Your task to perform on an android device: Open Chrome and go to settings Image 0: 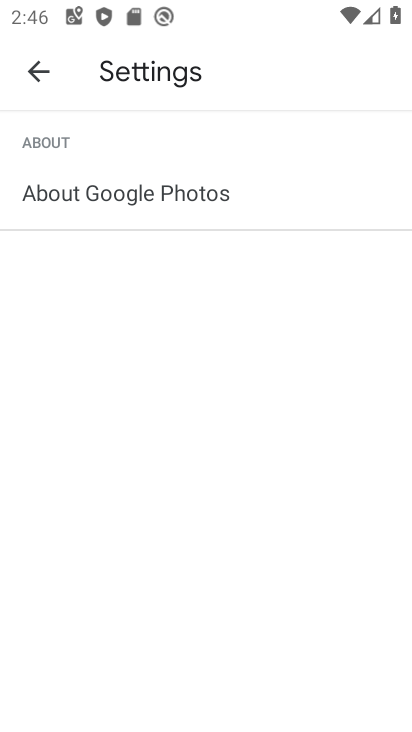
Step 0: press home button
Your task to perform on an android device: Open Chrome and go to settings Image 1: 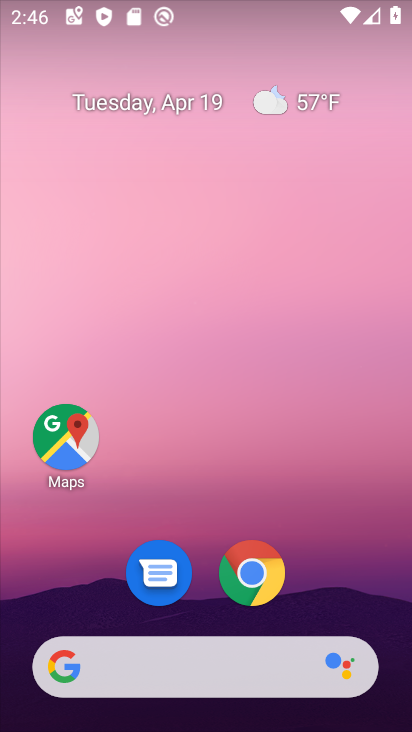
Step 1: click (245, 580)
Your task to perform on an android device: Open Chrome and go to settings Image 2: 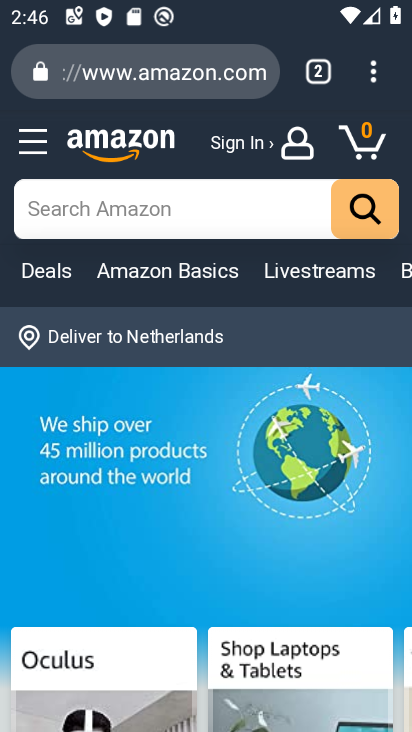
Step 2: click (376, 70)
Your task to perform on an android device: Open Chrome and go to settings Image 3: 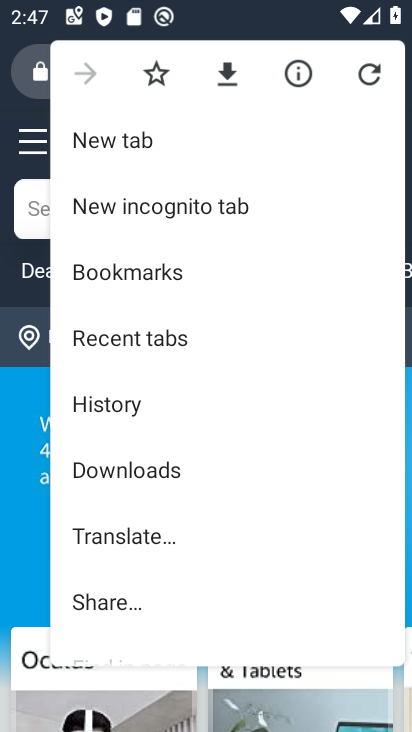
Step 3: drag from (274, 536) to (276, 190)
Your task to perform on an android device: Open Chrome and go to settings Image 4: 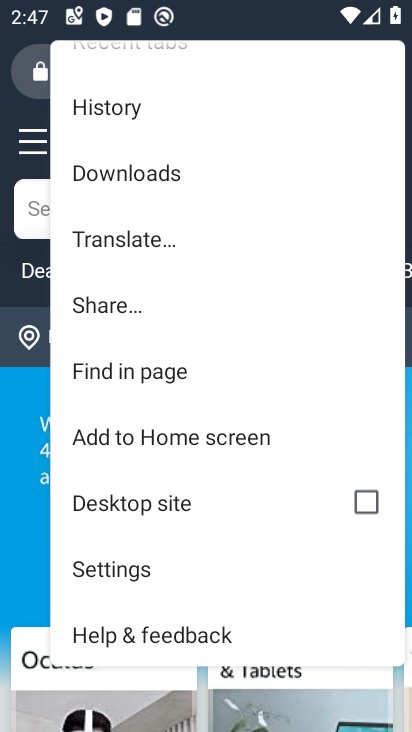
Step 4: click (123, 569)
Your task to perform on an android device: Open Chrome and go to settings Image 5: 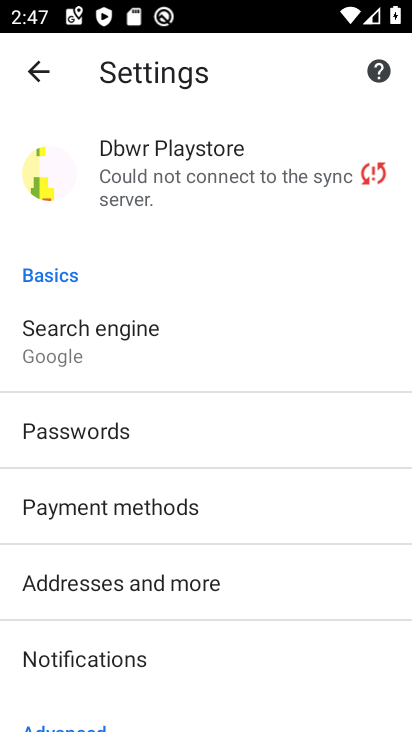
Step 5: task complete